Your task to perform on an android device: Go to sound settings Image 0: 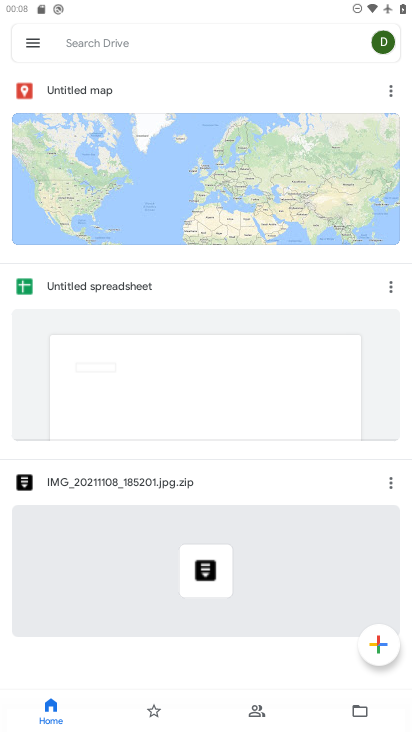
Step 0: press home button
Your task to perform on an android device: Go to sound settings Image 1: 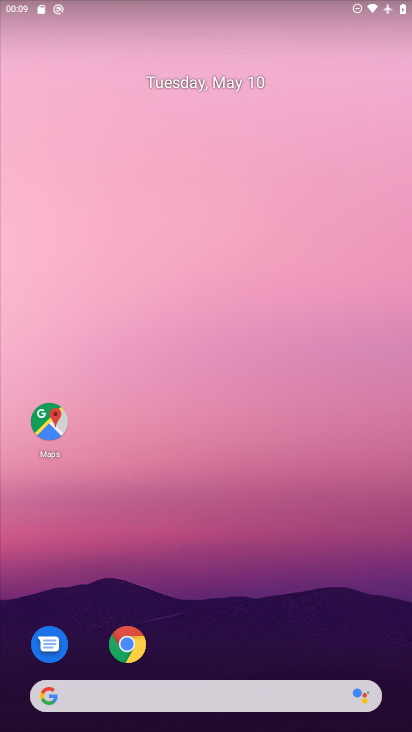
Step 1: drag from (209, 655) to (155, 176)
Your task to perform on an android device: Go to sound settings Image 2: 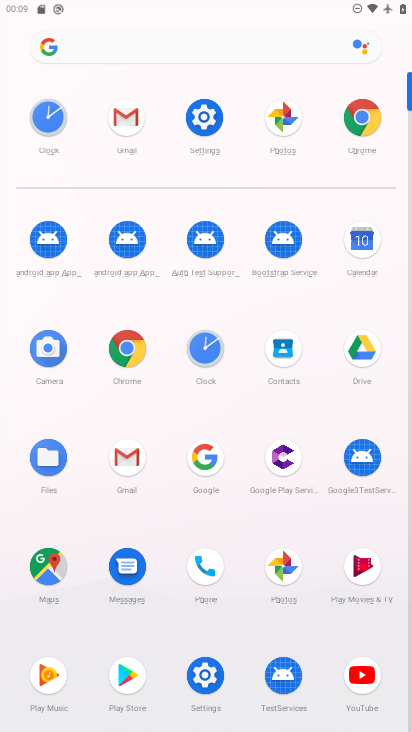
Step 2: click (192, 128)
Your task to perform on an android device: Go to sound settings Image 3: 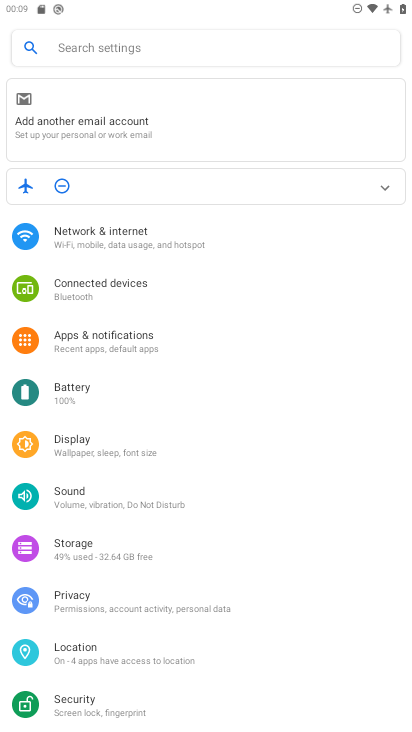
Step 3: click (102, 501)
Your task to perform on an android device: Go to sound settings Image 4: 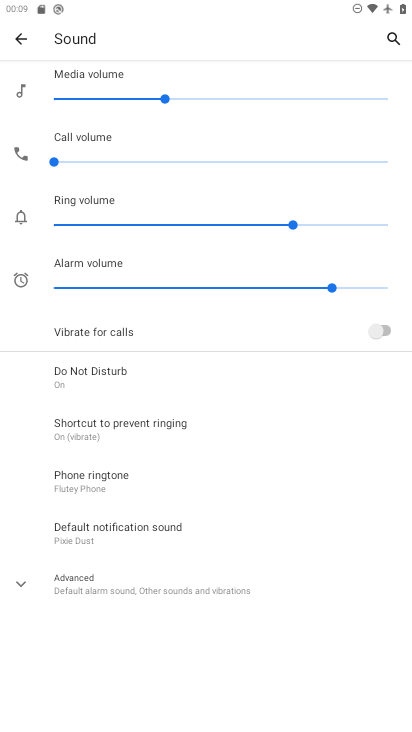
Step 4: task complete